Your task to perform on an android device: Go to CNN.com Image 0: 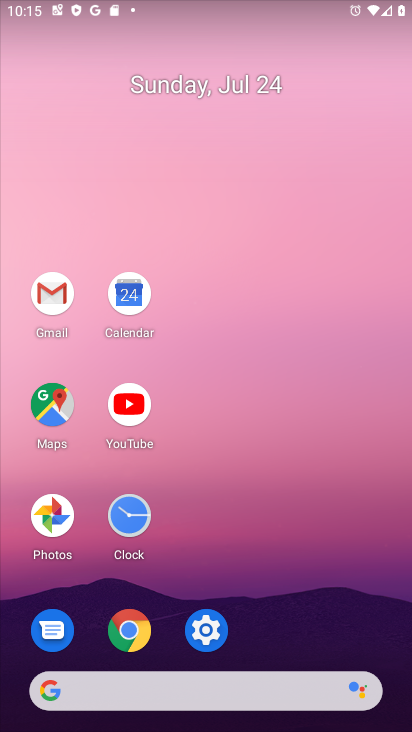
Step 0: click (127, 628)
Your task to perform on an android device: Go to CNN.com Image 1: 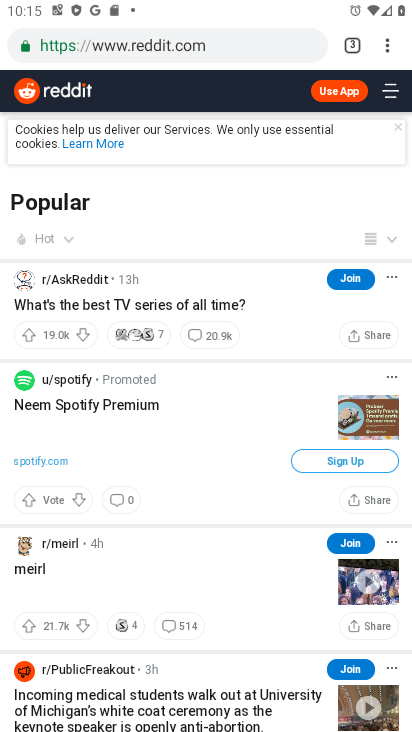
Step 1: click (382, 33)
Your task to perform on an android device: Go to CNN.com Image 2: 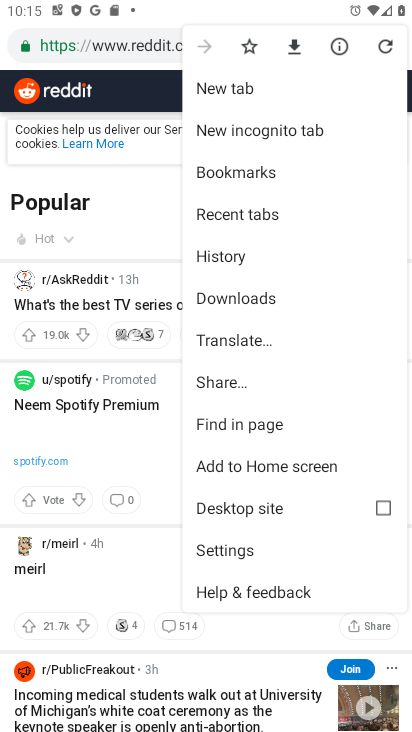
Step 2: click (244, 85)
Your task to perform on an android device: Go to CNN.com Image 3: 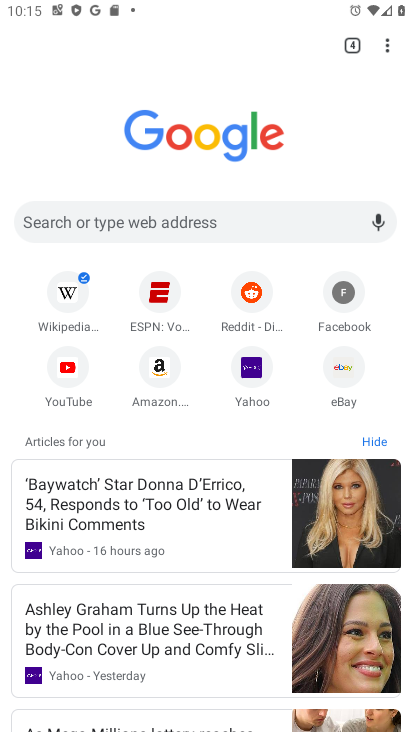
Step 3: click (158, 219)
Your task to perform on an android device: Go to CNN.com Image 4: 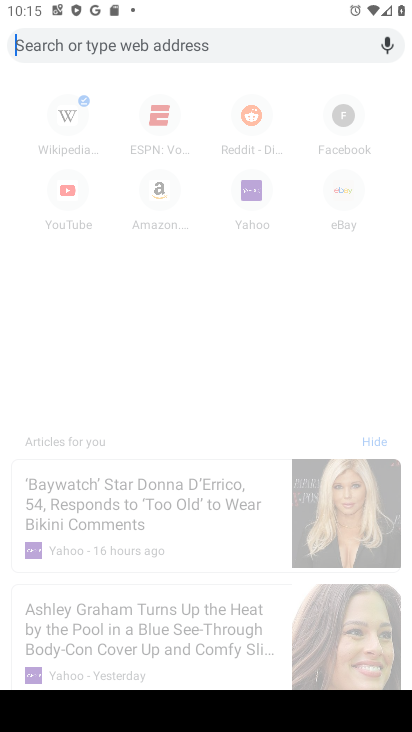
Step 4: type "cnn.com"
Your task to perform on an android device: Go to CNN.com Image 5: 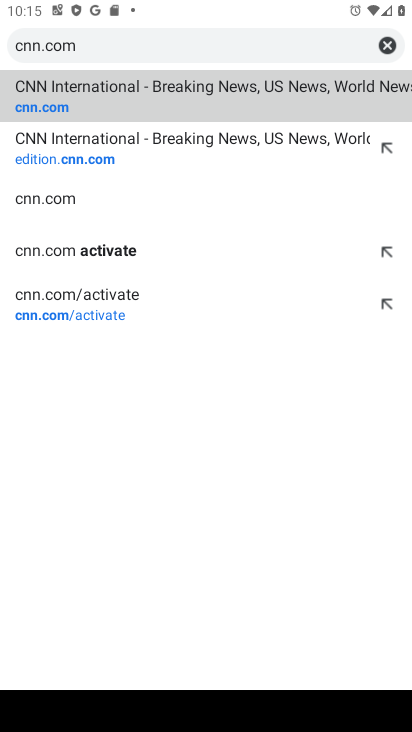
Step 5: click (99, 98)
Your task to perform on an android device: Go to CNN.com Image 6: 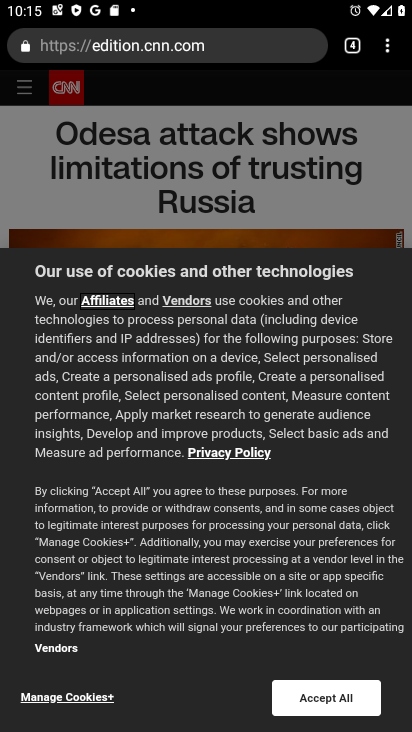
Step 6: task complete